Your task to perform on an android device: Open CNN.com Image 0: 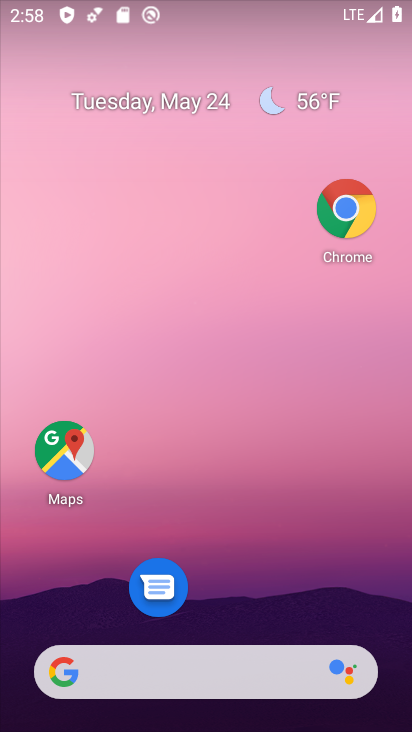
Step 0: click (360, 209)
Your task to perform on an android device: Open CNN.com Image 1: 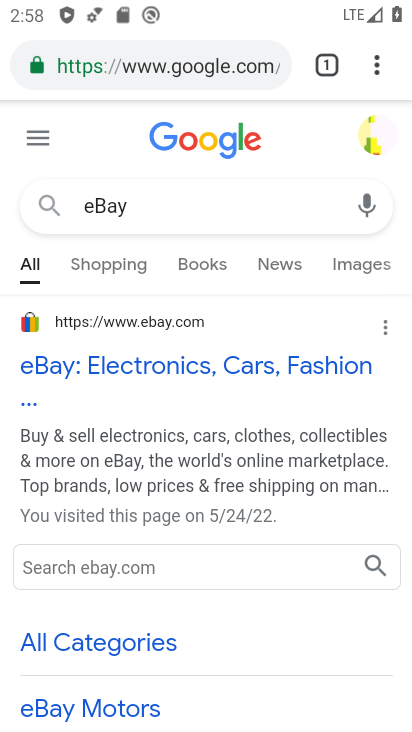
Step 1: click (138, 65)
Your task to perform on an android device: Open CNN.com Image 2: 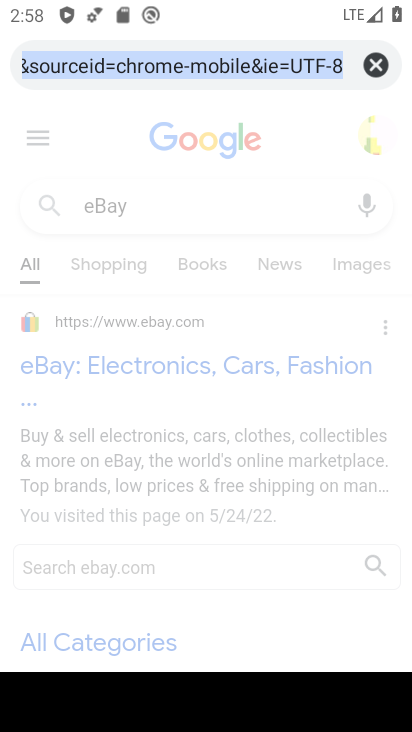
Step 2: type "CNN.com"
Your task to perform on an android device: Open CNN.com Image 3: 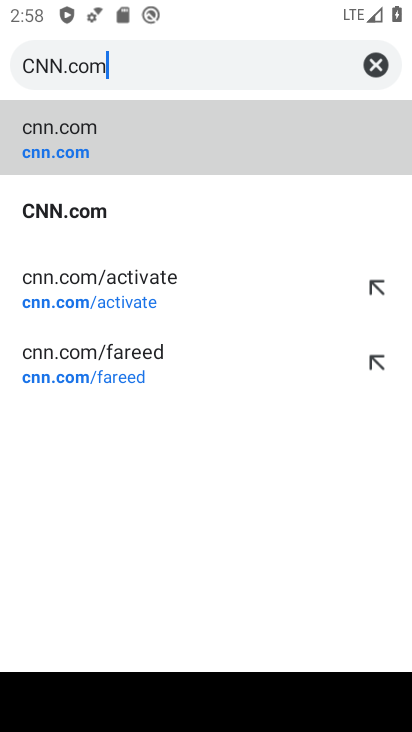
Step 3: click (97, 133)
Your task to perform on an android device: Open CNN.com Image 4: 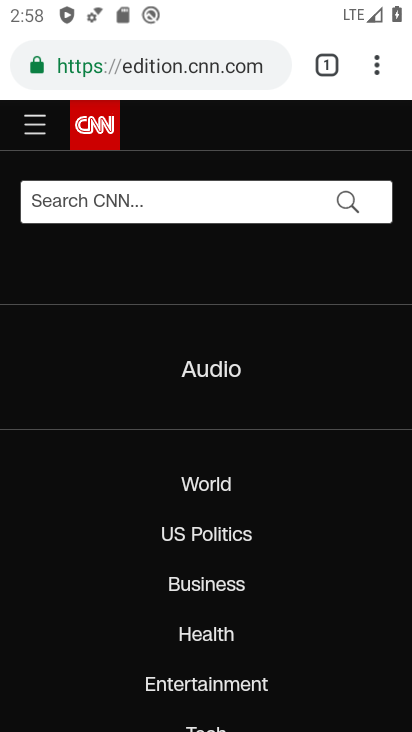
Step 4: task complete